Your task to perform on an android device: Open display settings Image 0: 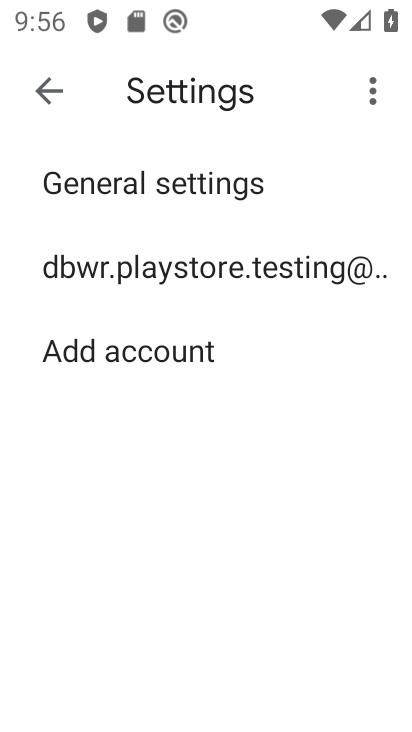
Step 0: click (60, 83)
Your task to perform on an android device: Open display settings Image 1: 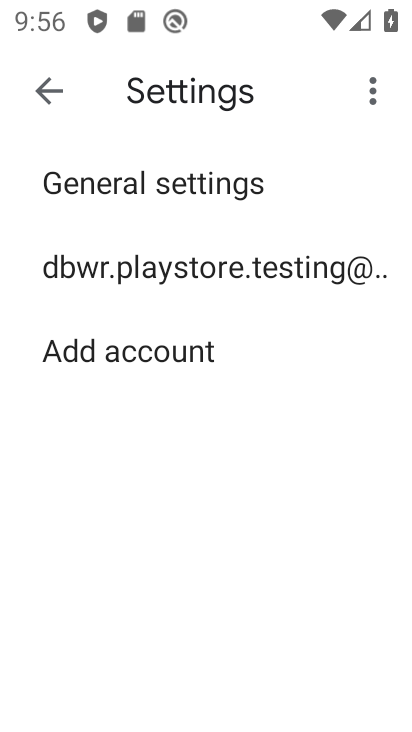
Step 1: click (51, 91)
Your task to perform on an android device: Open display settings Image 2: 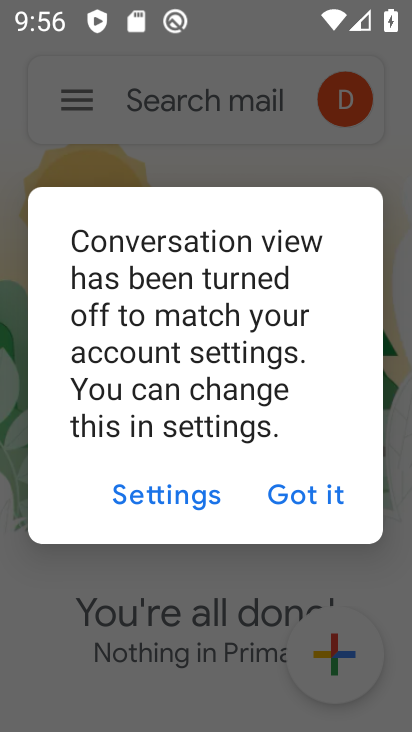
Step 2: press back button
Your task to perform on an android device: Open display settings Image 3: 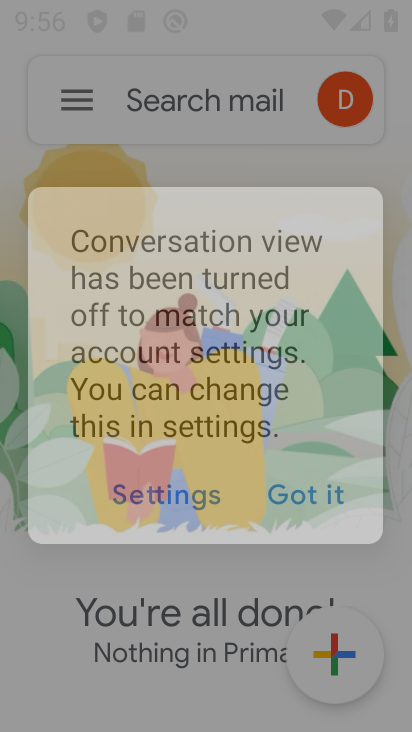
Step 3: press back button
Your task to perform on an android device: Open display settings Image 4: 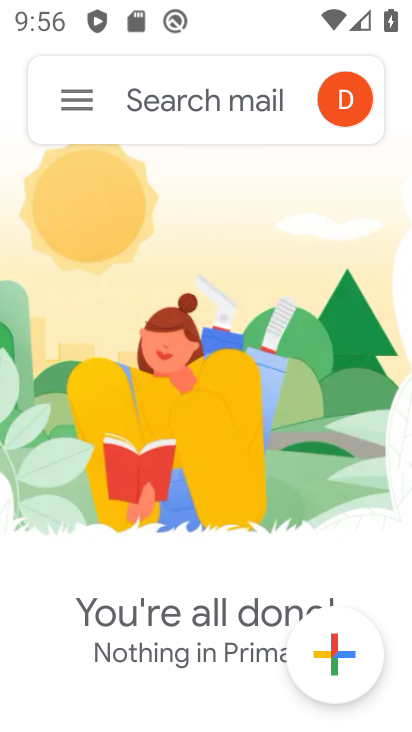
Step 4: press back button
Your task to perform on an android device: Open display settings Image 5: 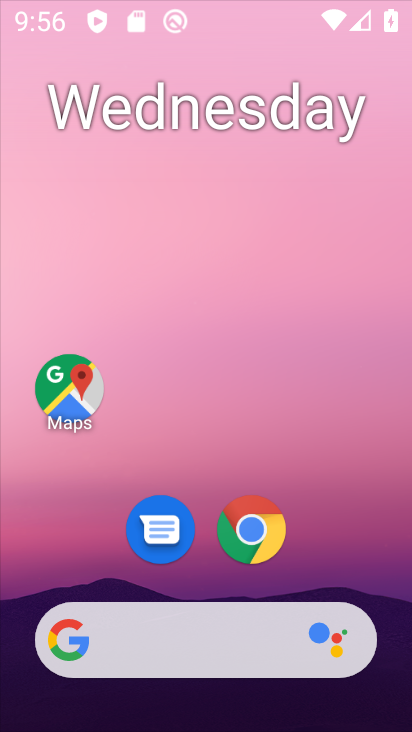
Step 5: press back button
Your task to perform on an android device: Open display settings Image 6: 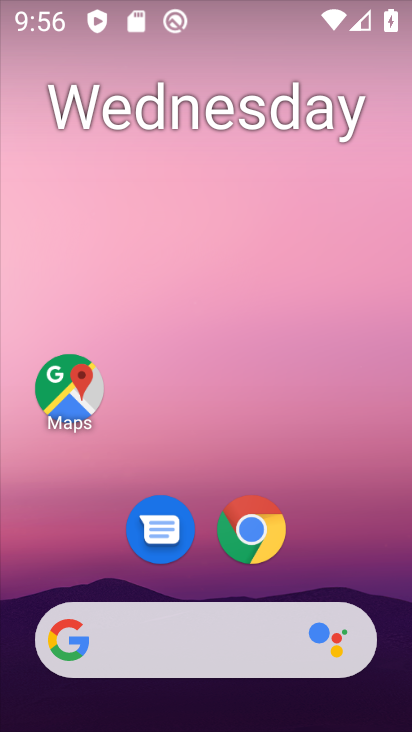
Step 6: drag from (243, 665) to (193, 113)
Your task to perform on an android device: Open display settings Image 7: 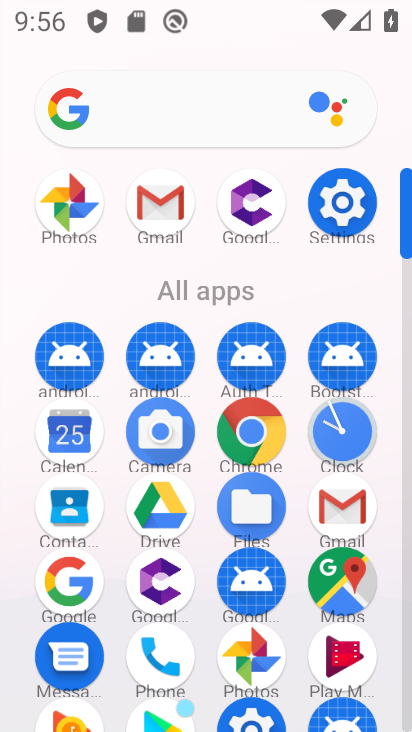
Step 7: click (344, 193)
Your task to perform on an android device: Open display settings Image 8: 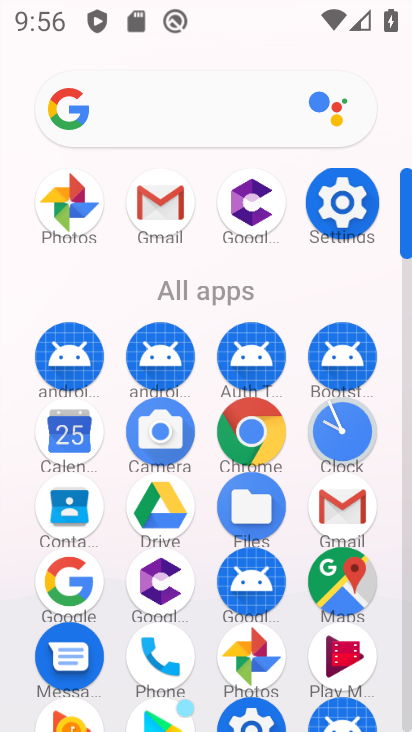
Step 8: click (344, 193)
Your task to perform on an android device: Open display settings Image 9: 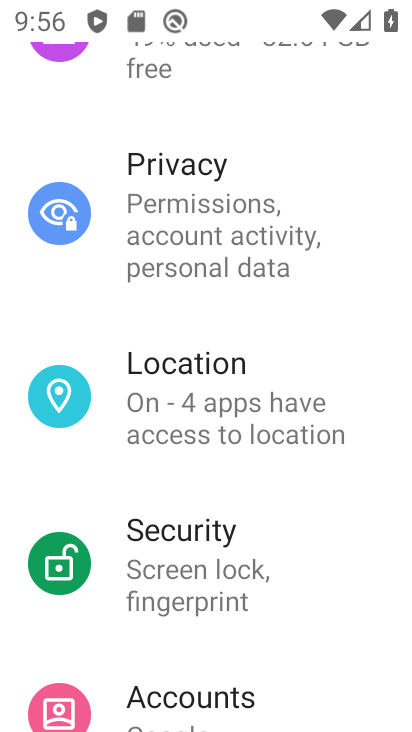
Step 9: drag from (180, 482) to (137, 196)
Your task to perform on an android device: Open display settings Image 10: 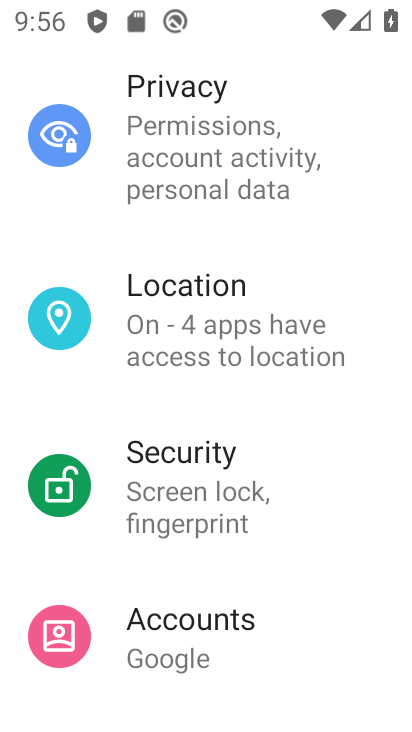
Step 10: click (199, 207)
Your task to perform on an android device: Open display settings Image 11: 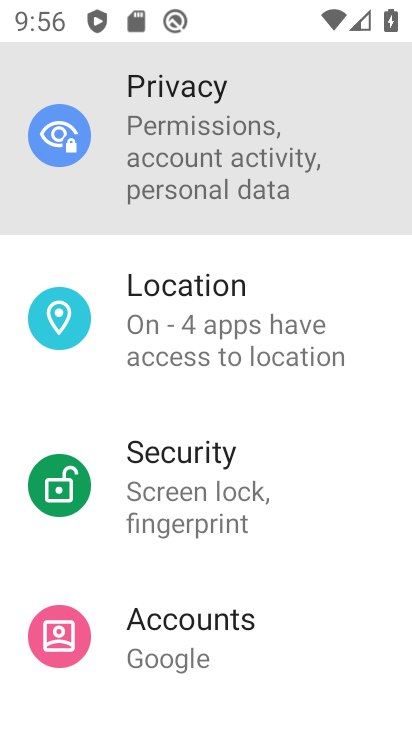
Step 11: drag from (175, 378) to (172, 280)
Your task to perform on an android device: Open display settings Image 12: 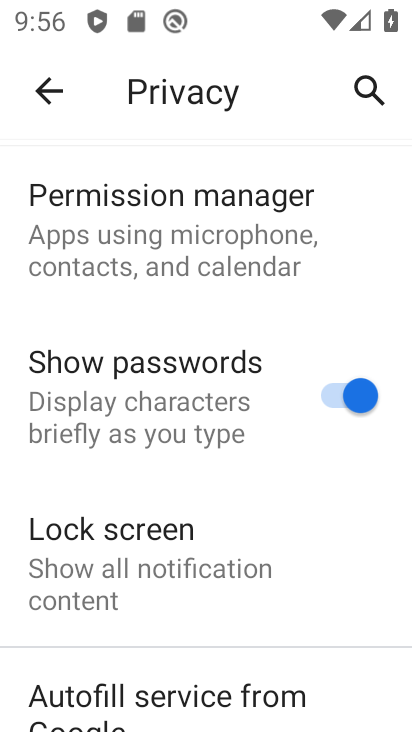
Step 12: drag from (224, 529) to (217, 176)
Your task to perform on an android device: Open display settings Image 13: 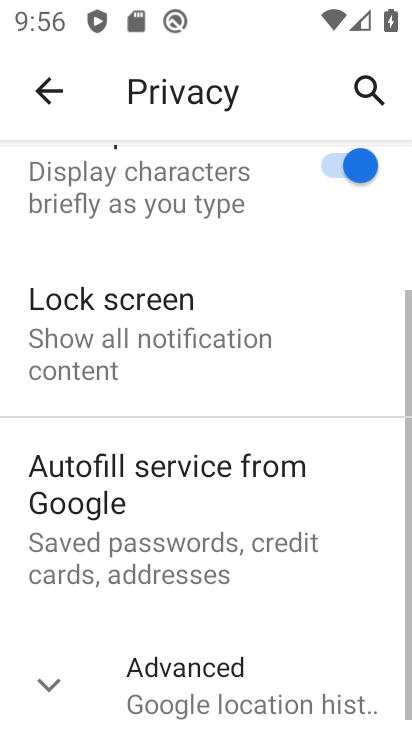
Step 13: drag from (218, 381) to (199, 52)
Your task to perform on an android device: Open display settings Image 14: 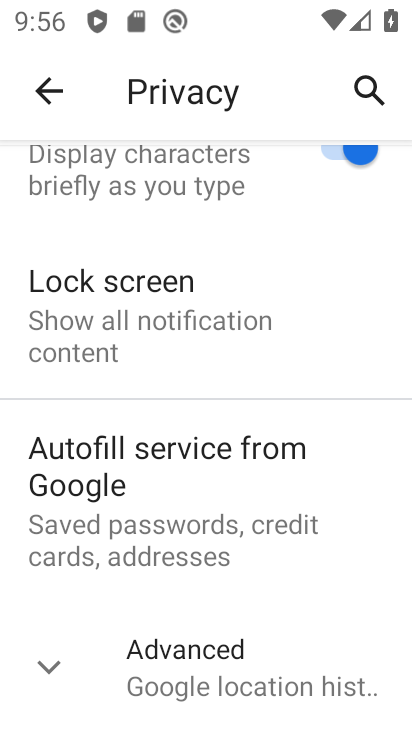
Step 14: click (38, 91)
Your task to perform on an android device: Open display settings Image 15: 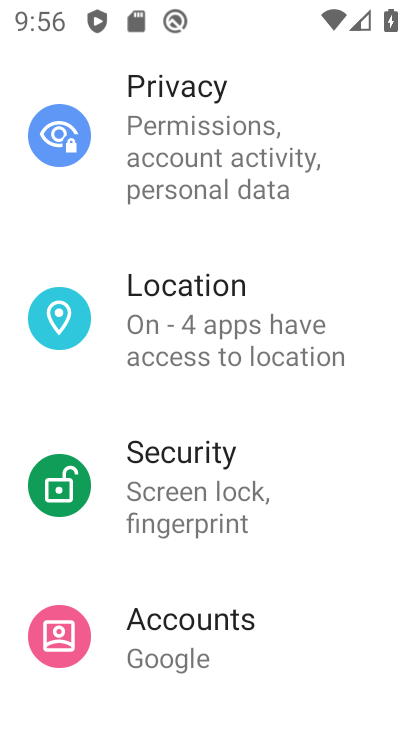
Step 15: drag from (212, 544) to (164, 186)
Your task to perform on an android device: Open display settings Image 16: 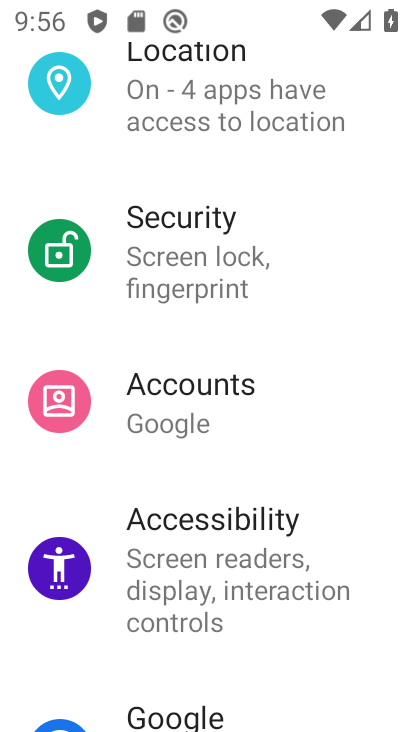
Step 16: drag from (220, 453) to (209, 84)
Your task to perform on an android device: Open display settings Image 17: 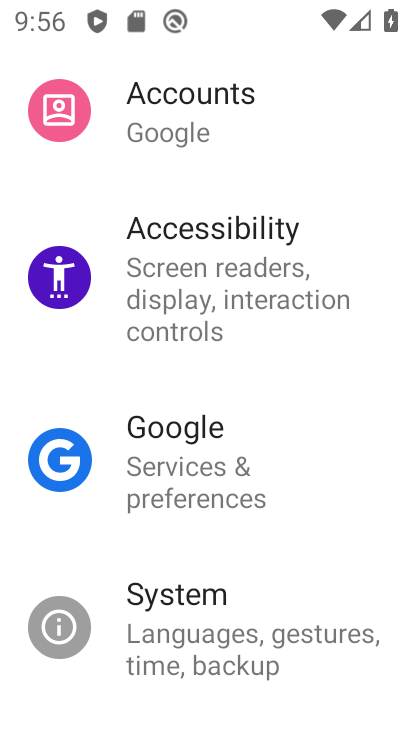
Step 17: drag from (243, 384) to (239, 64)
Your task to perform on an android device: Open display settings Image 18: 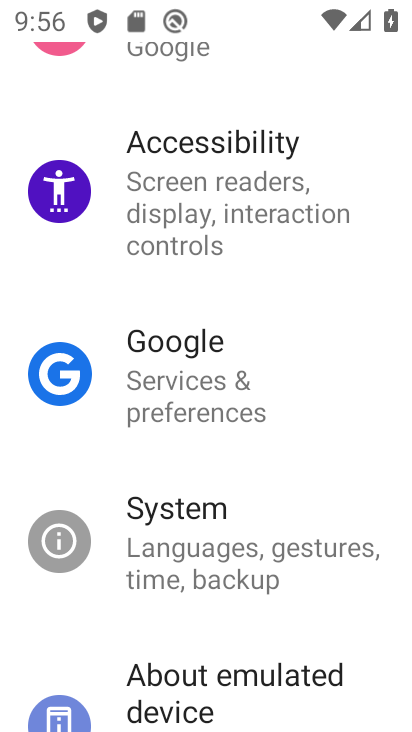
Step 18: drag from (244, 384) to (306, 5)
Your task to perform on an android device: Open display settings Image 19: 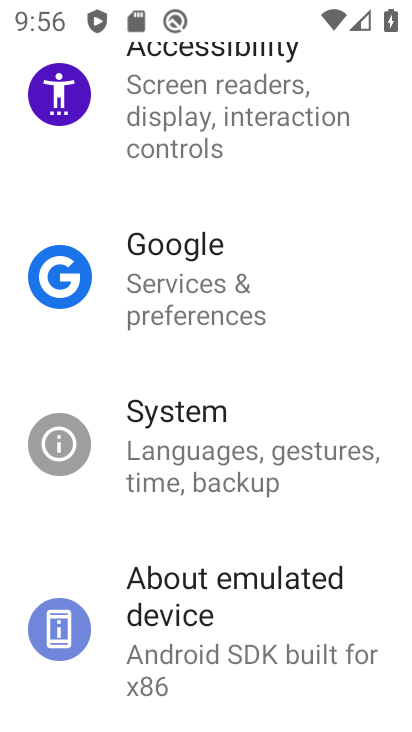
Step 19: drag from (301, 420) to (302, 40)
Your task to perform on an android device: Open display settings Image 20: 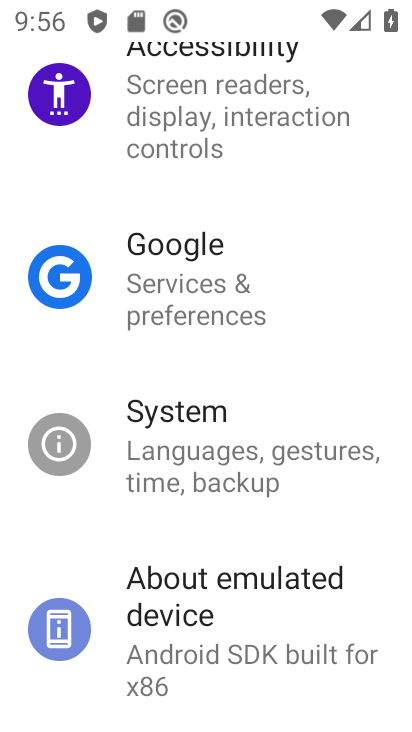
Step 20: drag from (180, 513) to (144, 124)
Your task to perform on an android device: Open display settings Image 21: 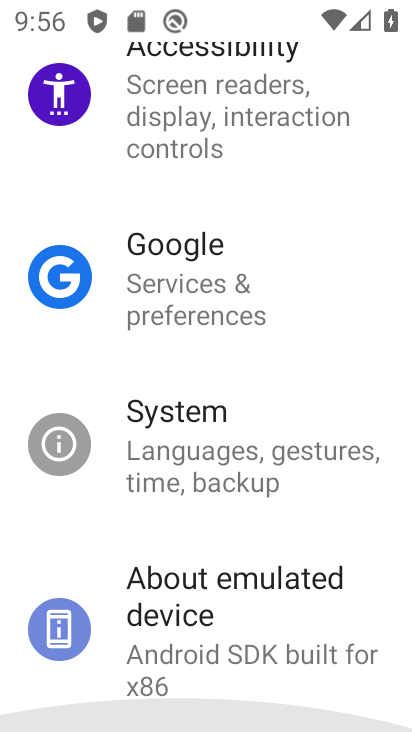
Step 21: drag from (205, 427) to (217, 142)
Your task to perform on an android device: Open display settings Image 22: 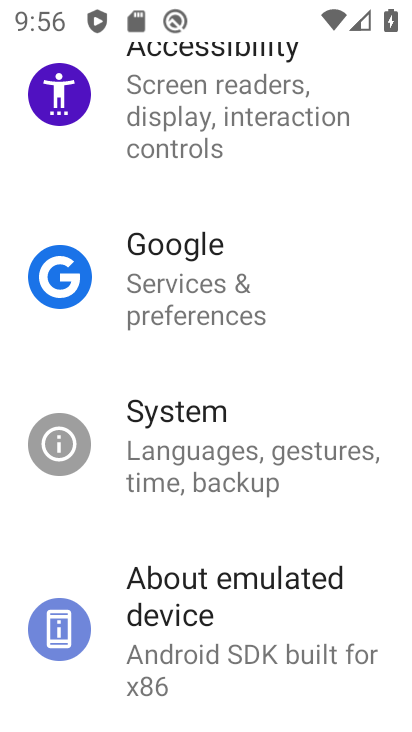
Step 22: drag from (185, 249) to (195, 522)
Your task to perform on an android device: Open display settings Image 23: 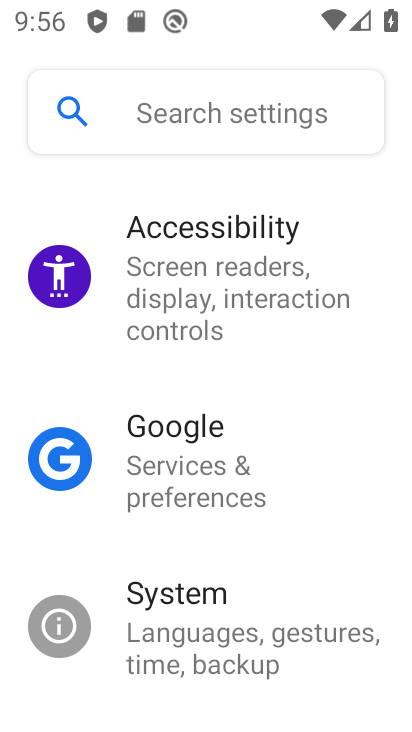
Step 23: drag from (99, 167) to (134, 549)
Your task to perform on an android device: Open display settings Image 24: 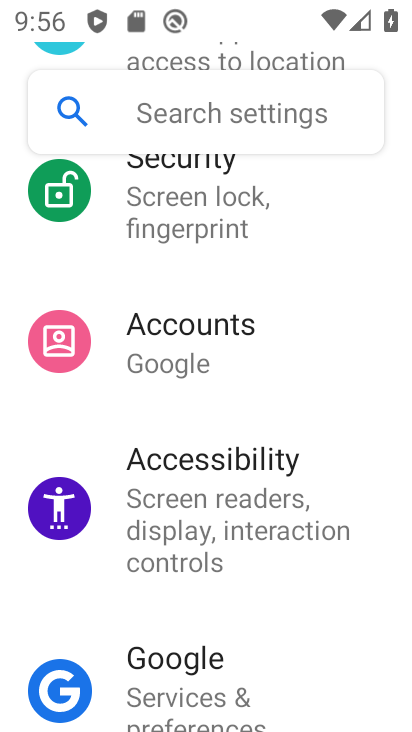
Step 24: drag from (161, 155) to (221, 486)
Your task to perform on an android device: Open display settings Image 25: 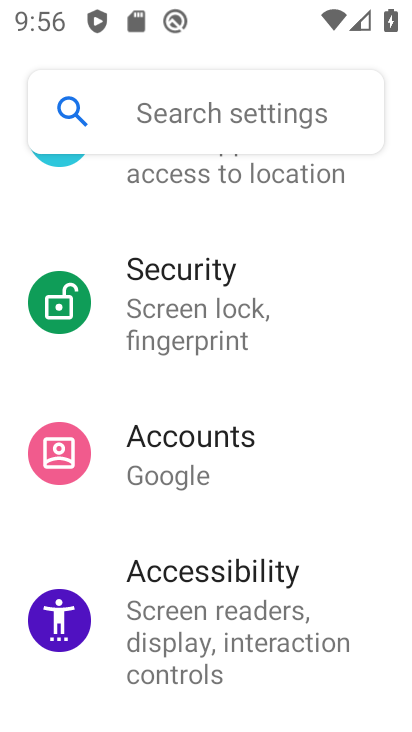
Step 25: click (254, 599)
Your task to perform on an android device: Open display settings Image 26: 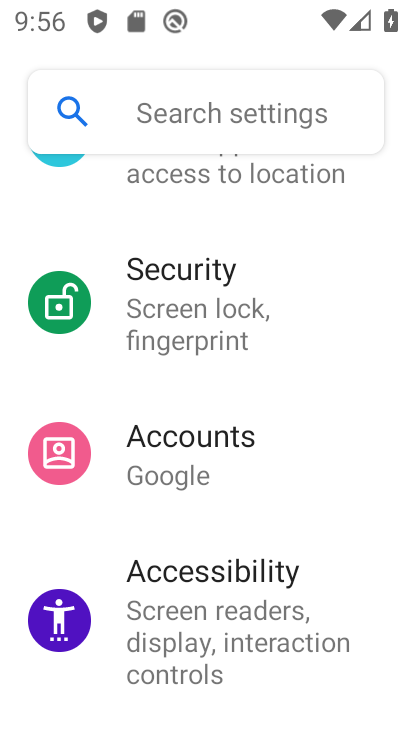
Step 26: click (183, 614)
Your task to perform on an android device: Open display settings Image 27: 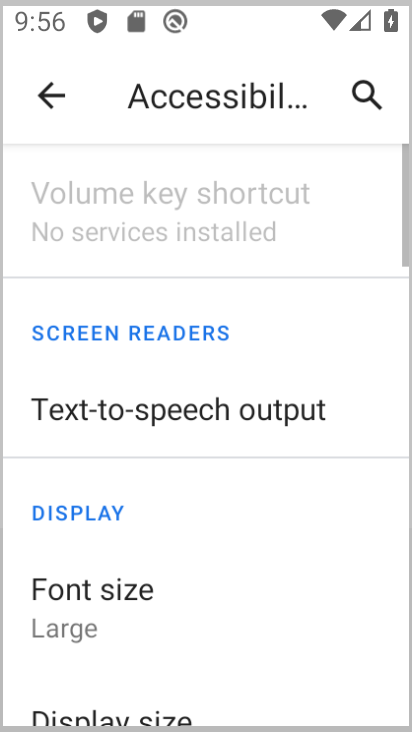
Step 27: drag from (210, 237) to (211, 528)
Your task to perform on an android device: Open display settings Image 28: 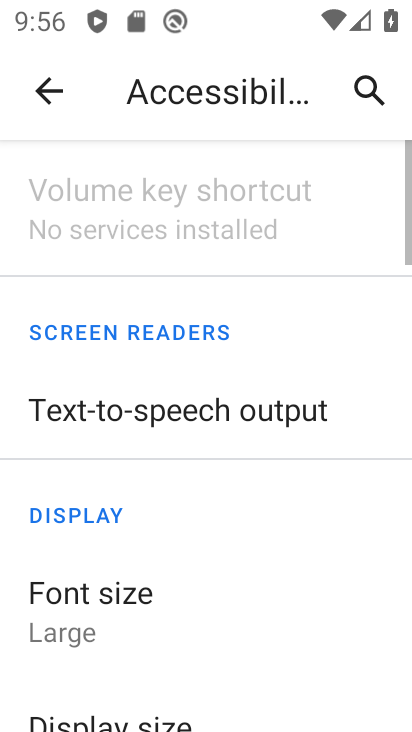
Step 28: drag from (209, 160) to (230, 497)
Your task to perform on an android device: Open display settings Image 29: 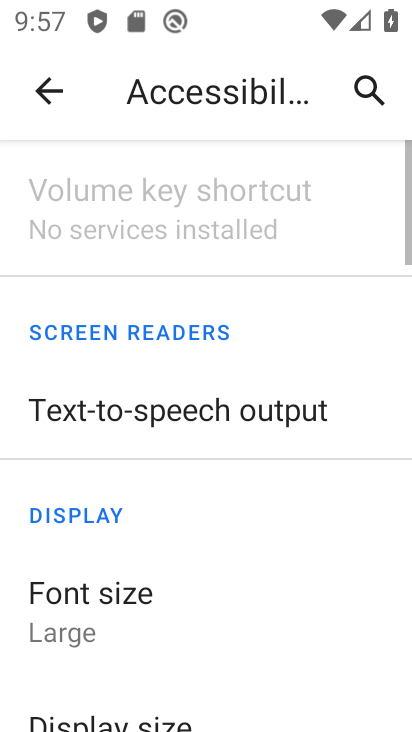
Step 29: click (220, 154)
Your task to perform on an android device: Open display settings Image 30: 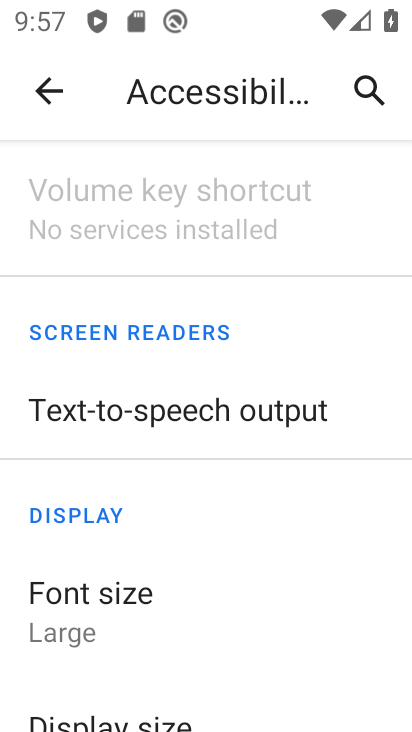
Step 30: click (45, 91)
Your task to perform on an android device: Open display settings Image 31: 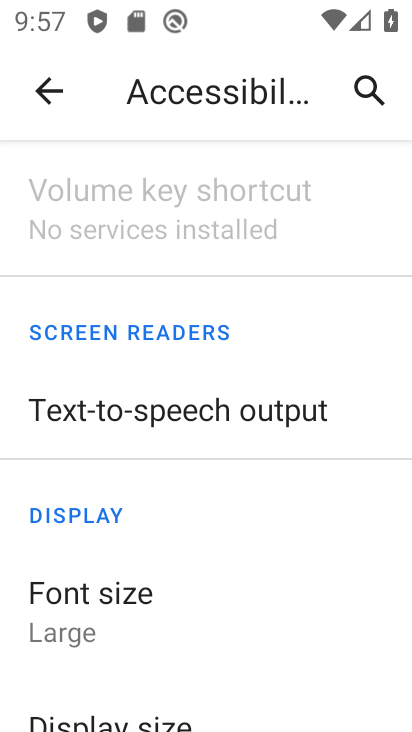
Step 31: click (45, 91)
Your task to perform on an android device: Open display settings Image 32: 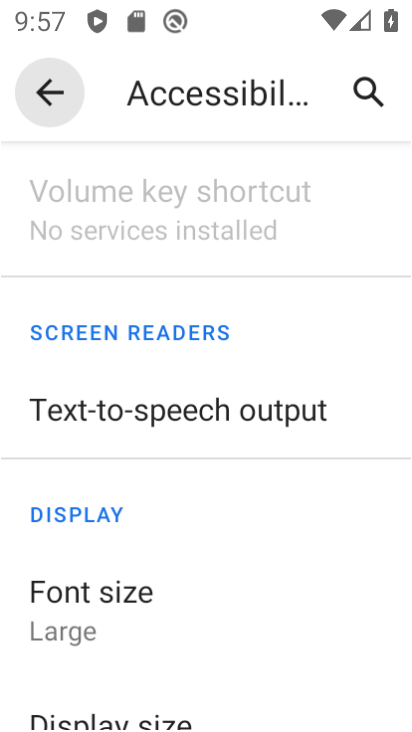
Step 32: click (45, 91)
Your task to perform on an android device: Open display settings Image 33: 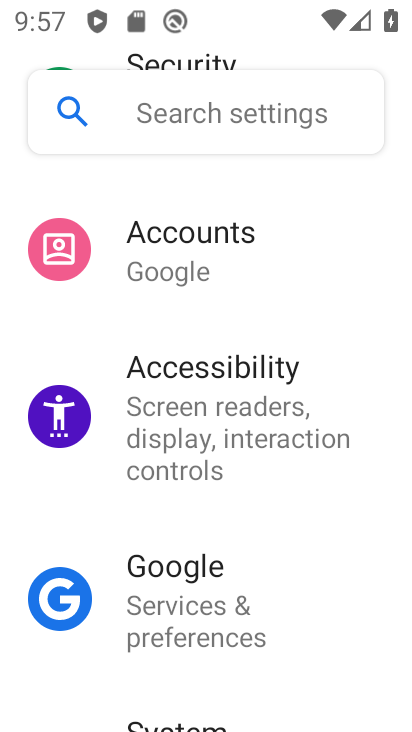
Step 33: click (46, 92)
Your task to perform on an android device: Open display settings Image 34: 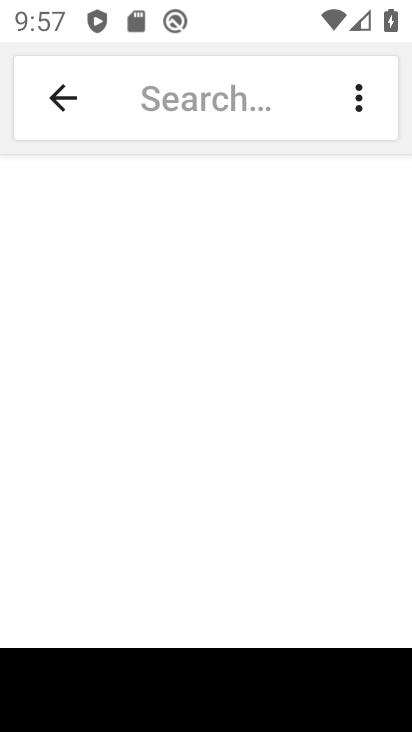
Step 34: click (58, 83)
Your task to perform on an android device: Open display settings Image 35: 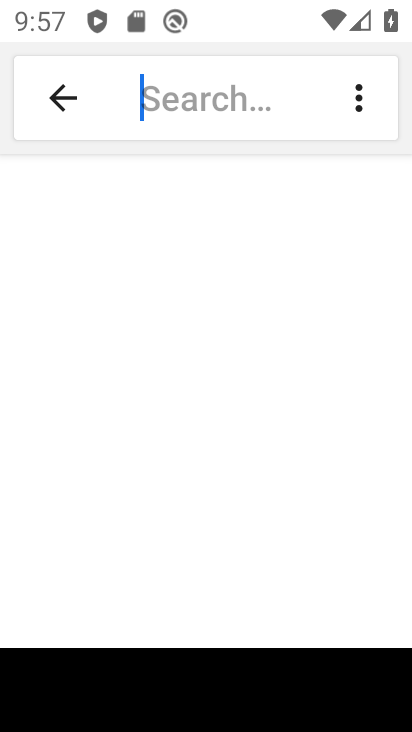
Step 35: click (59, 91)
Your task to perform on an android device: Open display settings Image 36: 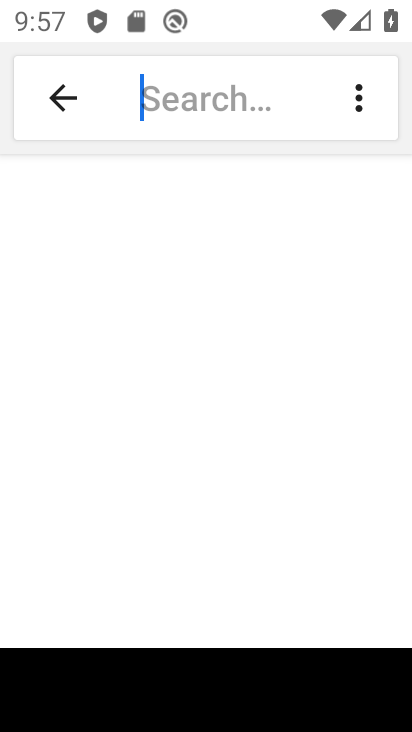
Step 36: click (61, 91)
Your task to perform on an android device: Open display settings Image 37: 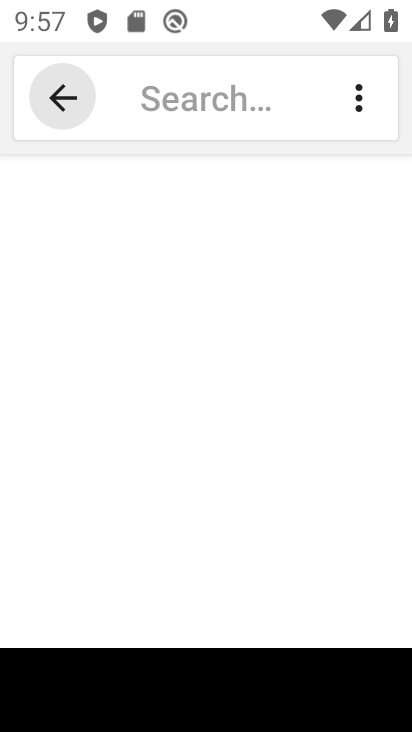
Step 37: click (60, 90)
Your task to perform on an android device: Open display settings Image 38: 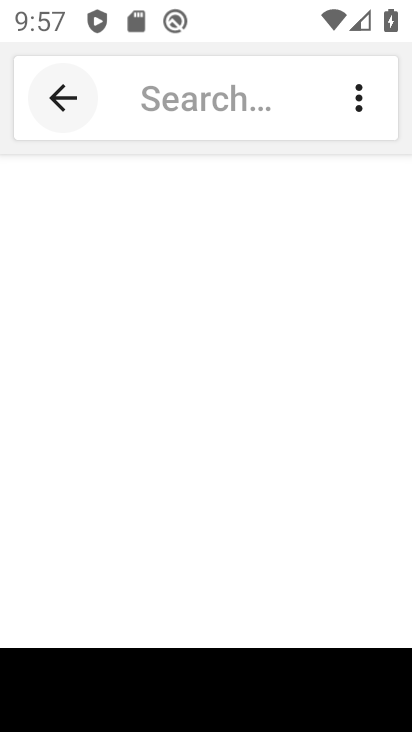
Step 38: click (60, 89)
Your task to perform on an android device: Open display settings Image 39: 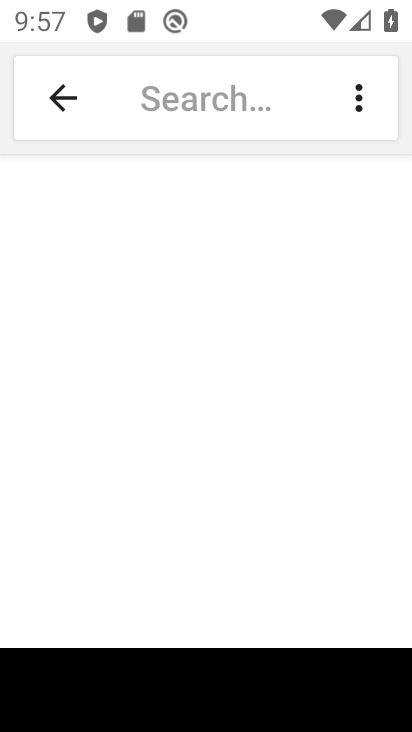
Step 39: click (47, 86)
Your task to perform on an android device: Open display settings Image 40: 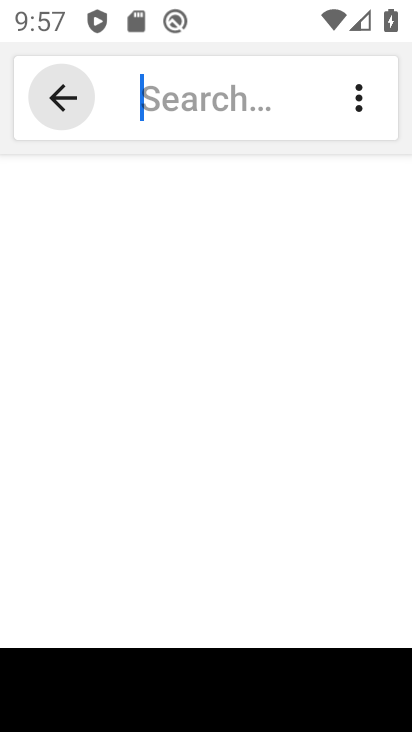
Step 40: click (47, 86)
Your task to perform on an android device: Open display settings Image 41: 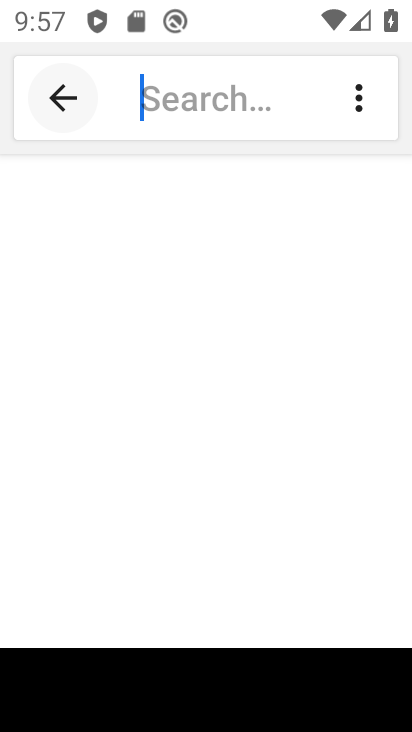
Step 41: click (47, 86)
Your task to perform on an android device: Open display settings Image 42: 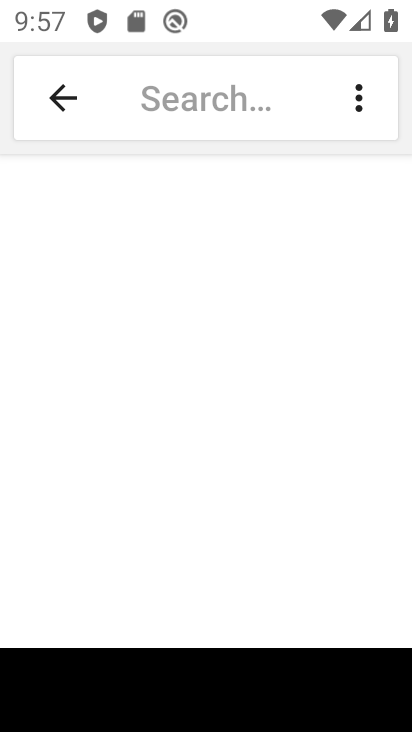
Step 42: click (53, 97)
Your task to perform on an android device: Open display settings Image 43: 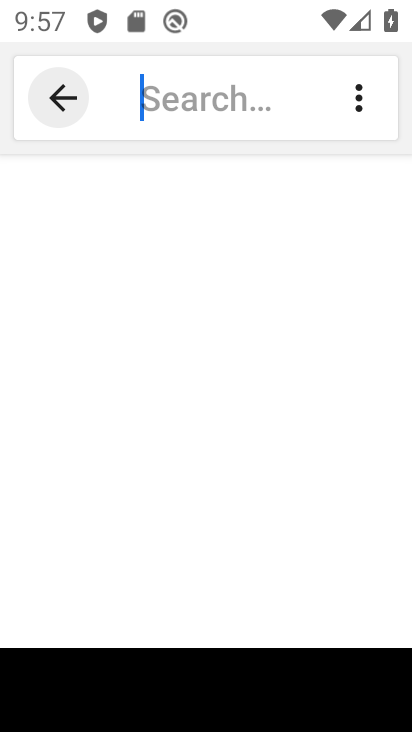
Step 43: click (58, 97)
Your task to perform on an android device: Open display settings Image 44: 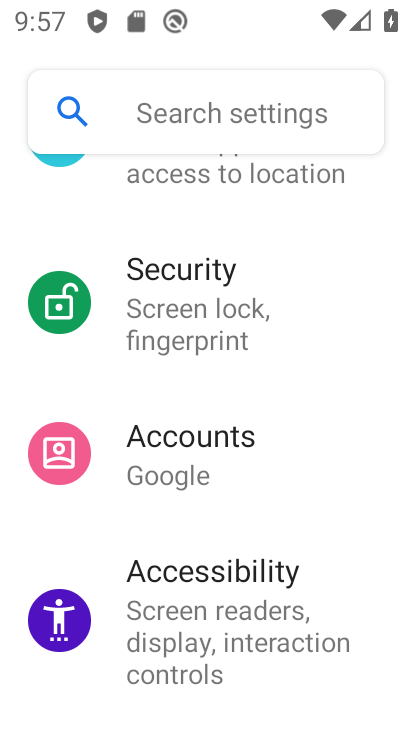
Step 44: drag from (169, 257) to (166, 515)
Your task to perform on an android device: Open display settings Image 45: 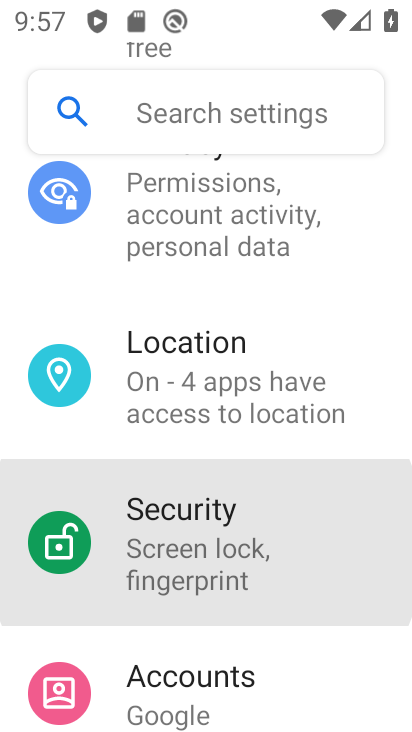
Step 45: drag from (196, 162) to (234, 445)
Your task to perform on an android device: Open display settings Image 46: 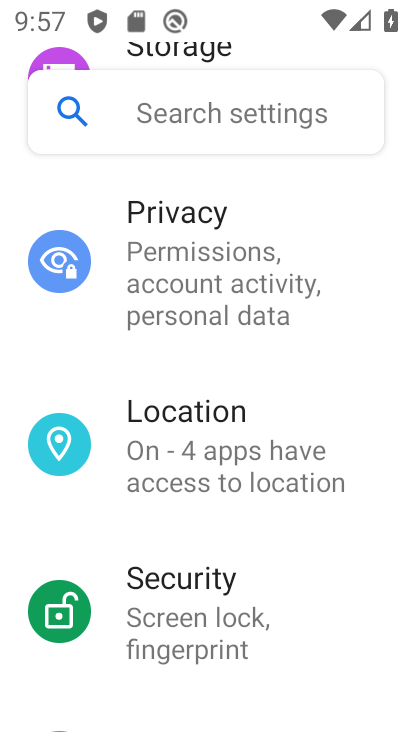
Step 46: drag from (218, 217) to (245, 460)
Your task to perform on an android device: Open display settings Image 47: 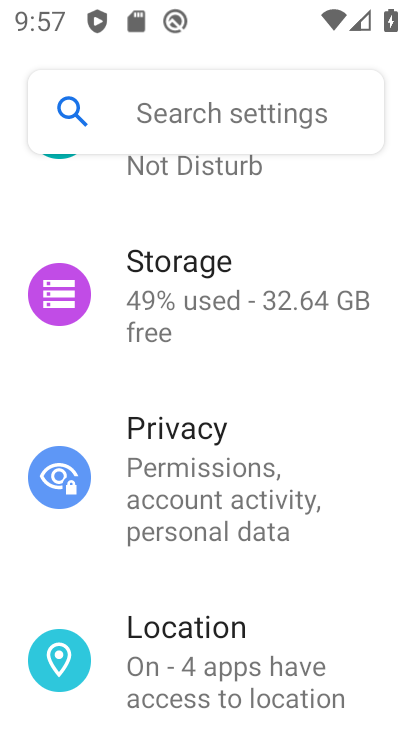
Step 47: drag from (190, 319) to (195, 640)
Your task to perform on an android device: Open display settings Image 48: 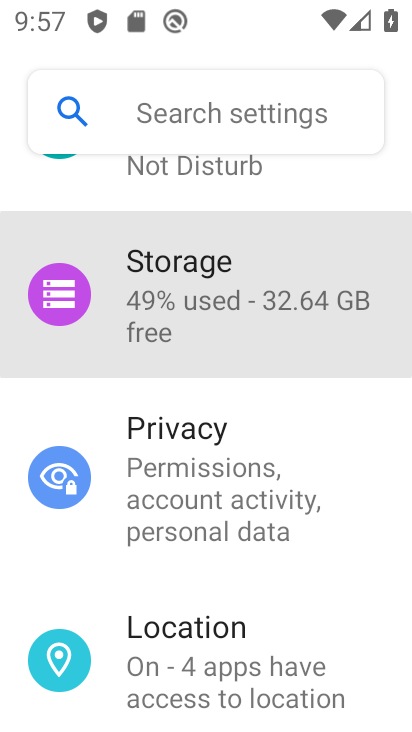
Step 48: drag from (185, 231) to (173, 597)
Your task to perform on an android device: Open display settings Image 49: 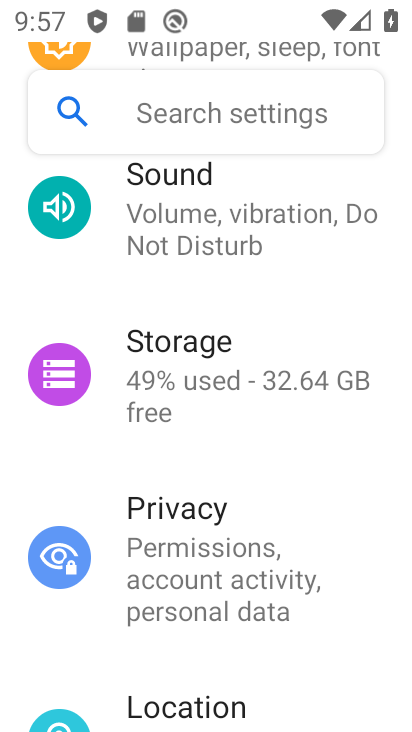
Step 49: drag from (131, 278) to (194, 583)
Your task to perform on an android device: Open display settings Image 50: 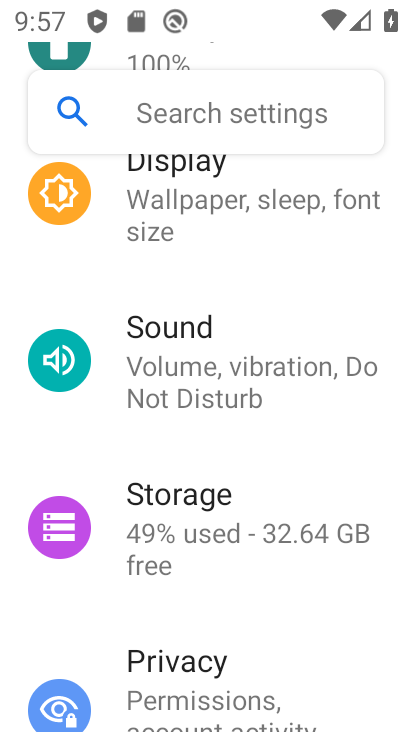
Step 50: drag from (168, 246) to (226, 668)
Your task to perform on an android device: Open display settings Image 51: 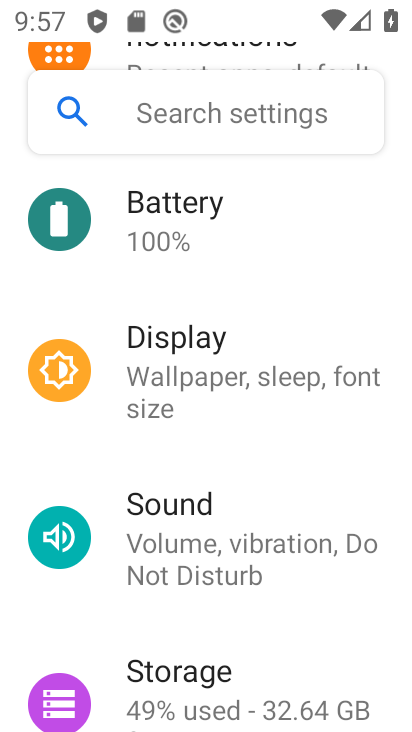
Step 51: drag from (206, 257) to (222, 621)
Your task to perform on an android device: Open display settings Image 52: 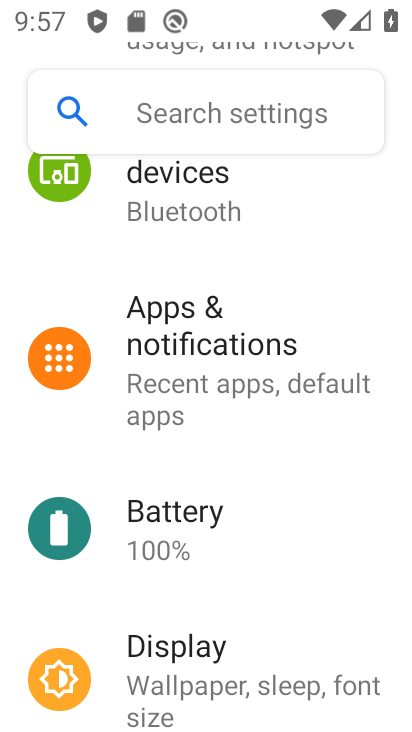
Step 52: drag from (167, 270) to (182, 580)
Your task to perform on an android device: Open display settings Image 53: 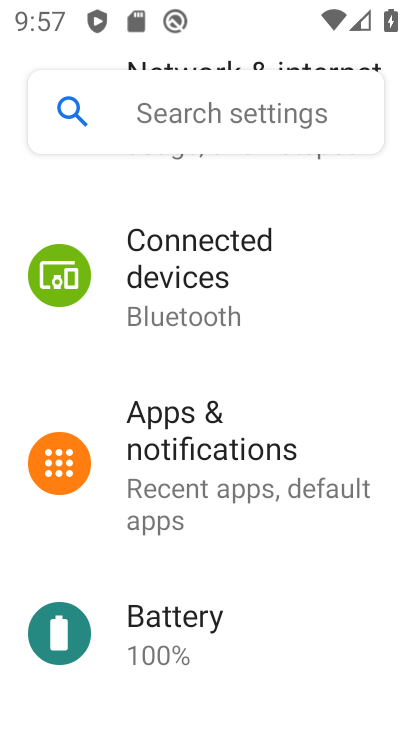
Step 53: drag from (190, 605) to (164, 250)
Your task to perform on an android device: Open display settings Image 54: 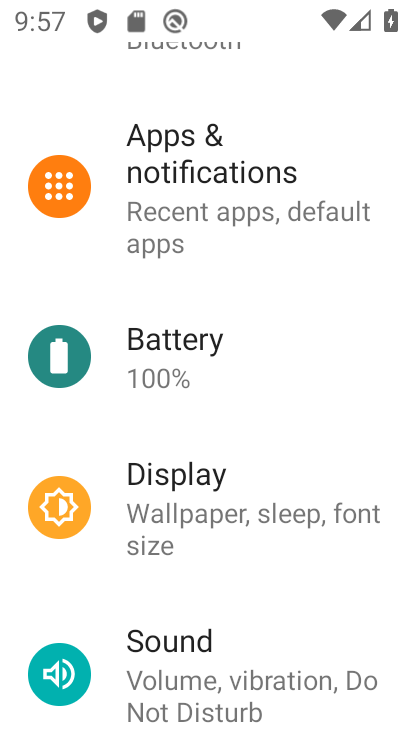
Step 54: click (180, 492)
Your task to perform on an android device: Open display settings Image 55: 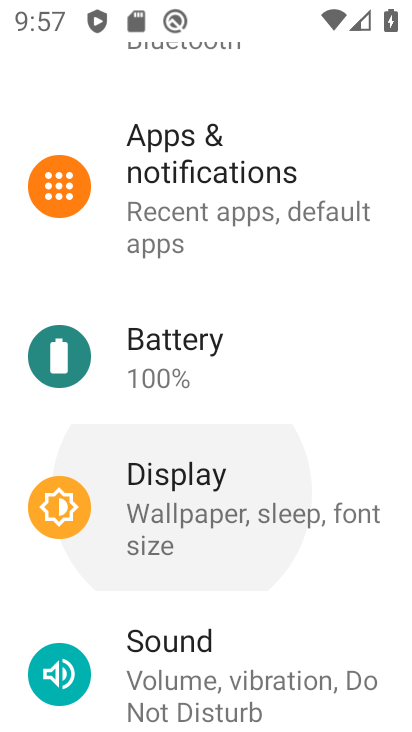
Step 55: click (180, 494)
Your task to perform on an android device: Open display settings Image 56: 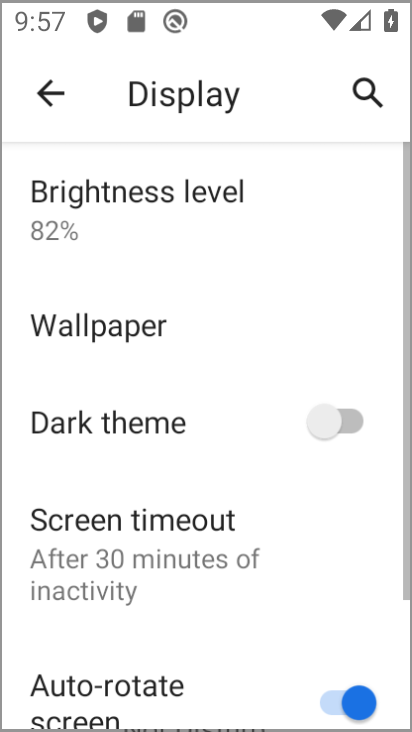
Step 56: click (180, 495)
Your task to perform on an android device: Open display settings Image 57: 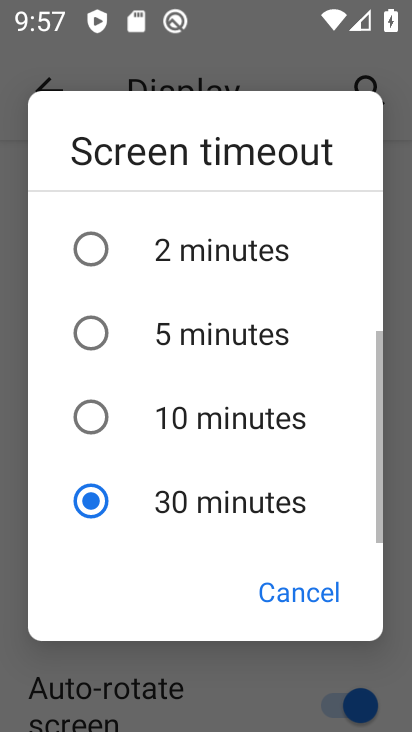
Step 57: task complete